Your task to perform on an android device: Open Amazon Image 0: 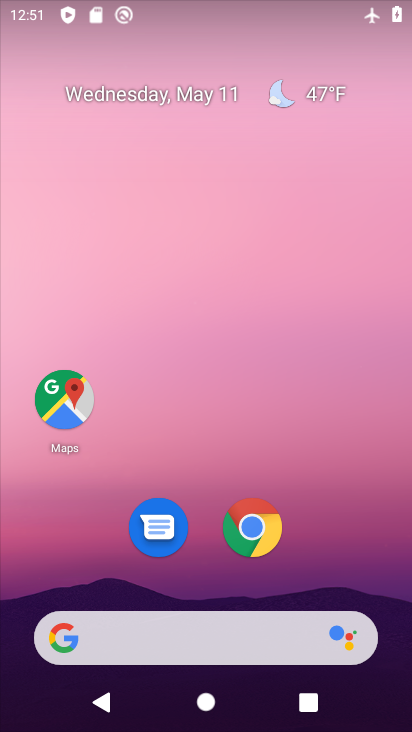
Step 0: drag from (342, 367) to (319, 166)
Your task to perform on an android device: Open Amazon Image 1: 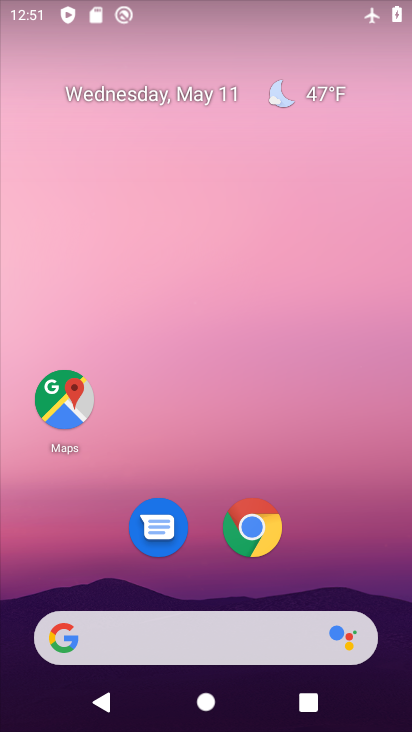
Step 1: drag from (237, 575) to (264, 125)
Your task to perform on an android device: Open Amazon Image 2: 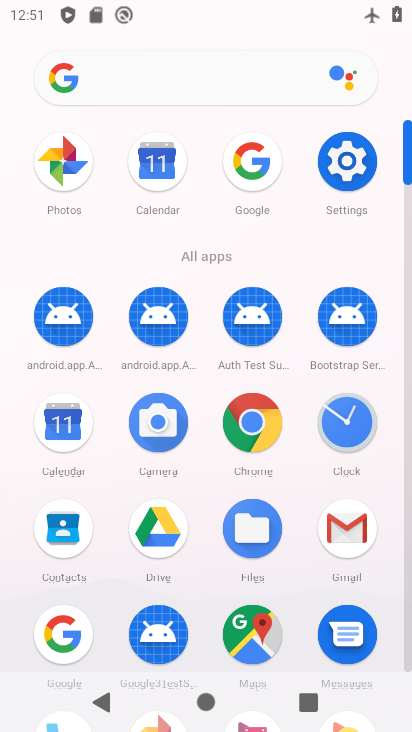
Step 2: drag from (209, 547) to (249, 179)
Your task to perform on an android device: Open Amazon Image 3: 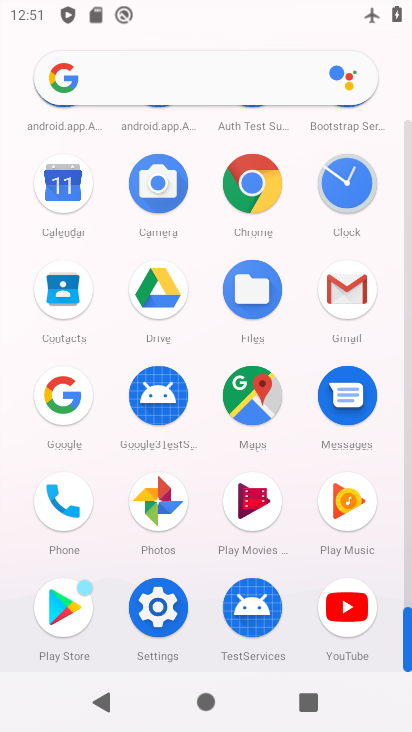
Step 3: click (57, 385)
Your task to perform on an android device: Open Amazon Image 4: 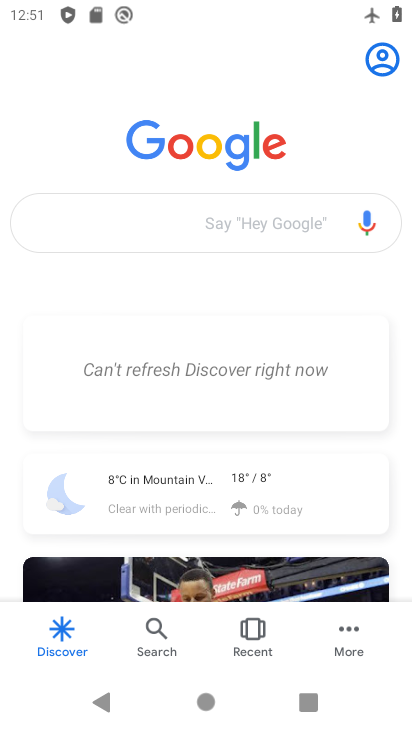
Step 4: click (81, 231)
Your task to perform on an android device: Open Amazon Image 5: 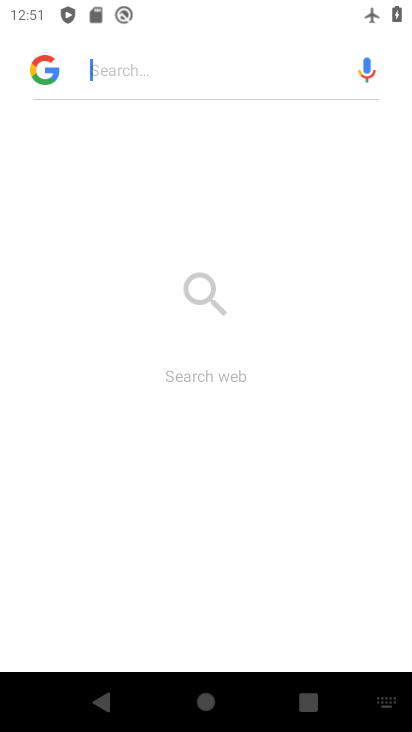
Step 5: press back button
Your task to perform on an android device: Open Amazon Image 6: 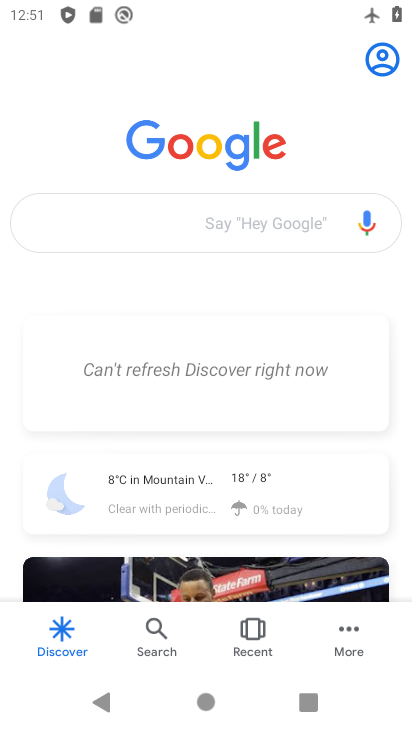
Step 6: press back button
Your task to perform on an android device: Open Amazon Image 7: 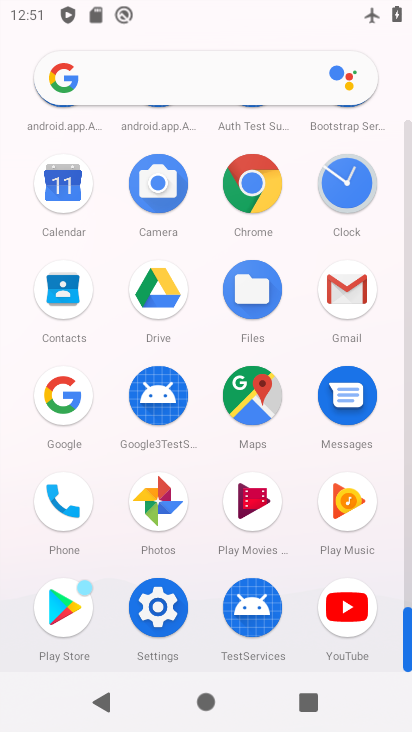
Step 7: click (245, 174)
Your task to perform on an android device: Open Amazon Image 8: 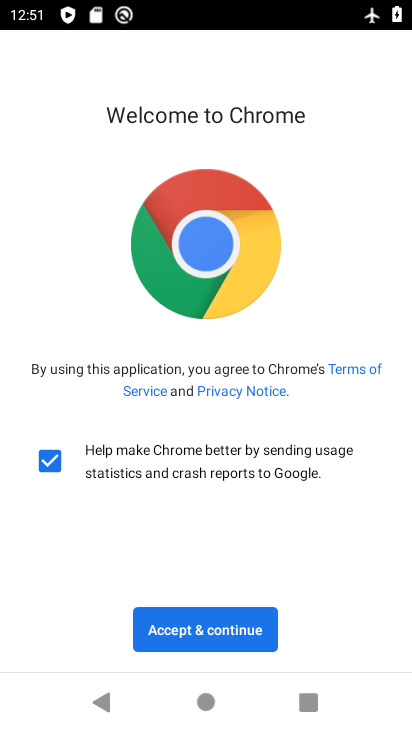
Step 8: click (186, 611)
Your task to perform on an android device: Open Amazon Image 9: 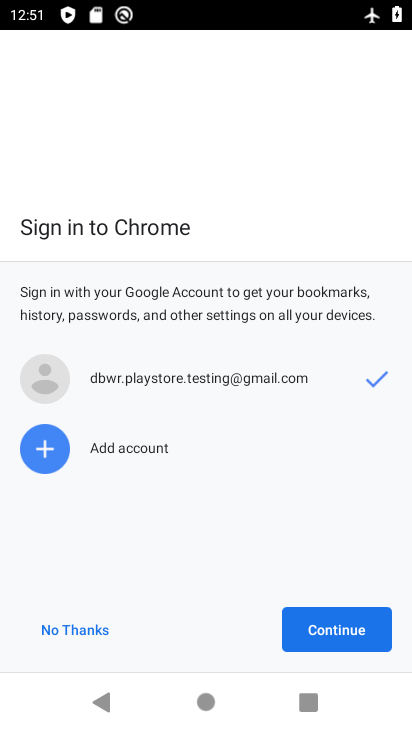
Step 9: click (58, 632)
Your task to perform on an android device: Open Amazon Image 10: 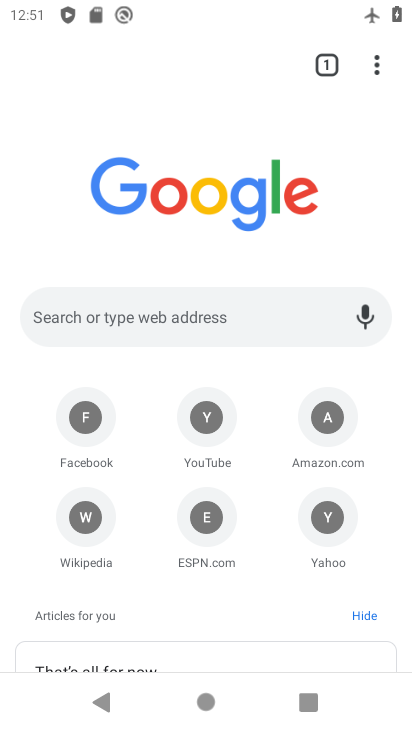
Step 10: click (322, 427)
Your task to perform on an android device: Open Amazon Image 11: 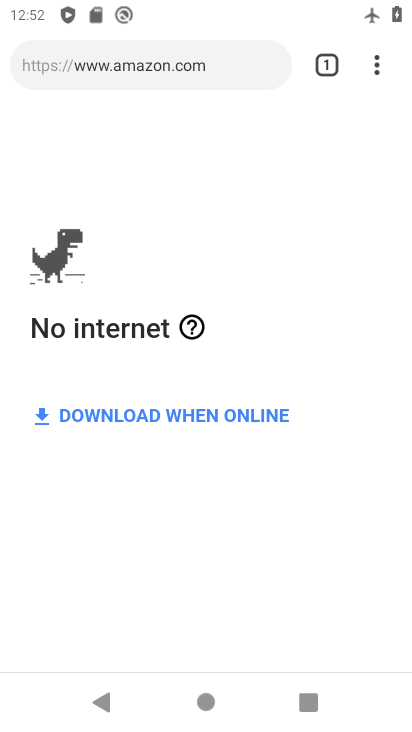
Step 11: drag from (282, 10) to (190, 500)
Your task to perform on an android device: Open Amazon Image 12: 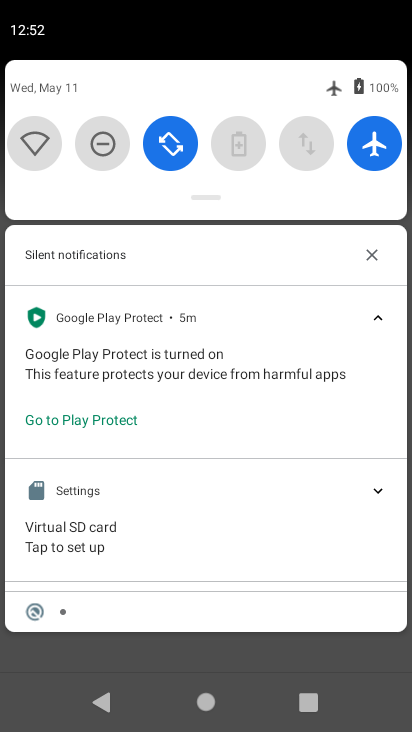
Step 12: click (370, 143)
Your task to perform on an android device: Open Amazon Image 13: 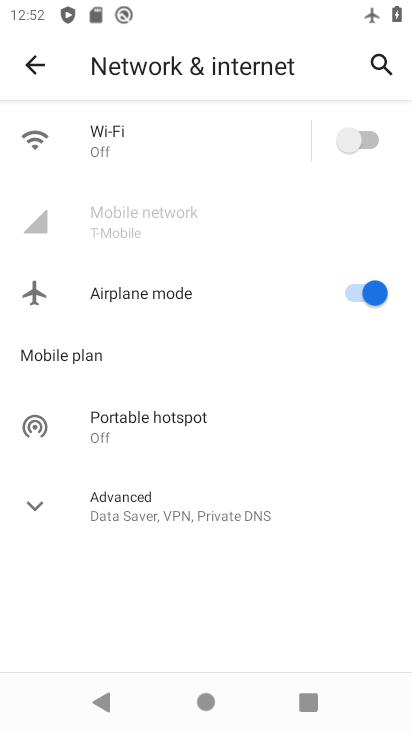
Step 13: click (361, 299)
Your task to perform on an android device: Open Amazon Image 14: 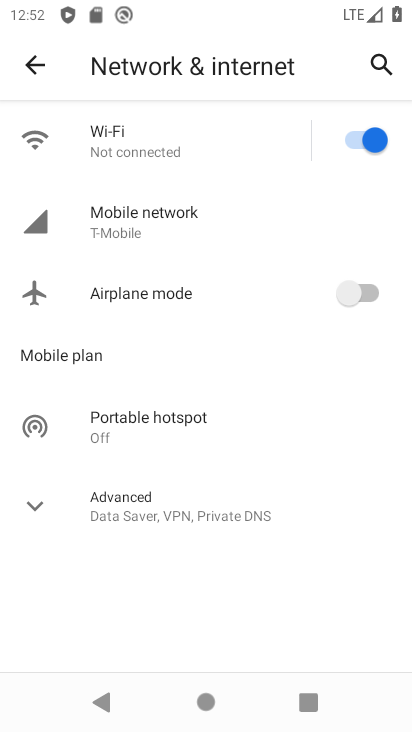
Step 14: click (21, 58)
Your task to perform on an android device: Open Amazon Image 15: 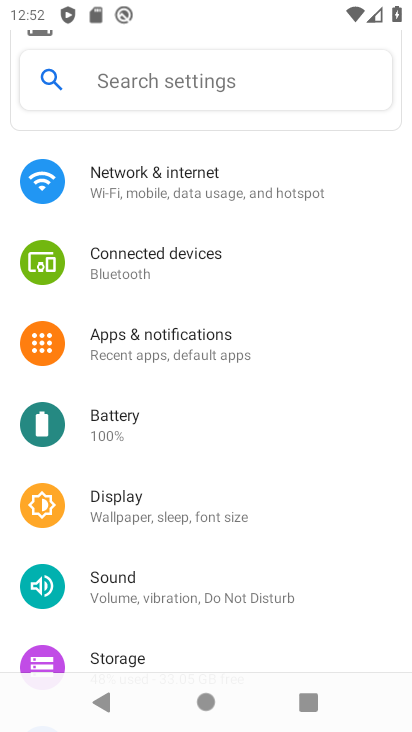
Step 15: press home button
Your task to perform on an android device: Open Amazon Image 16: 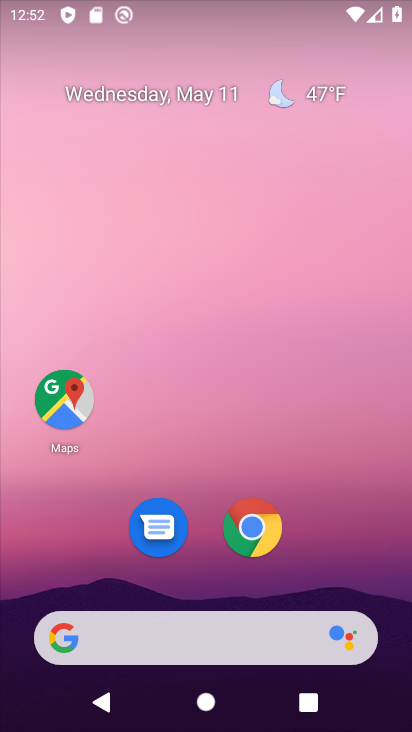
Step 16: drag from (169, 517) to (235, 175)
Your task to perform on an android device: Open Amazon Image 17: 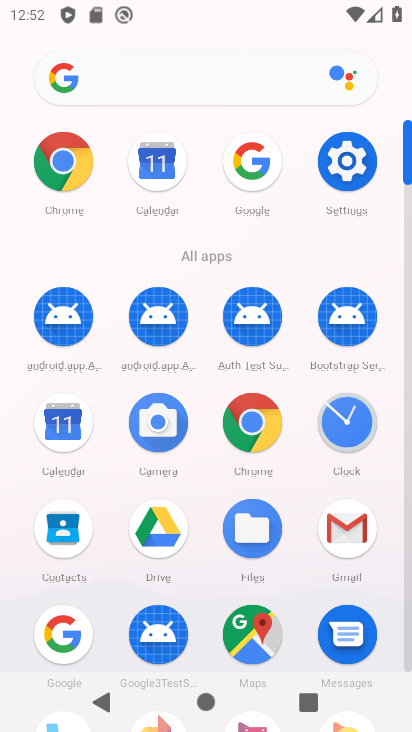
Step 17: click (58, 168)
Your task to perform on an android device: Open Amazon Image 18: 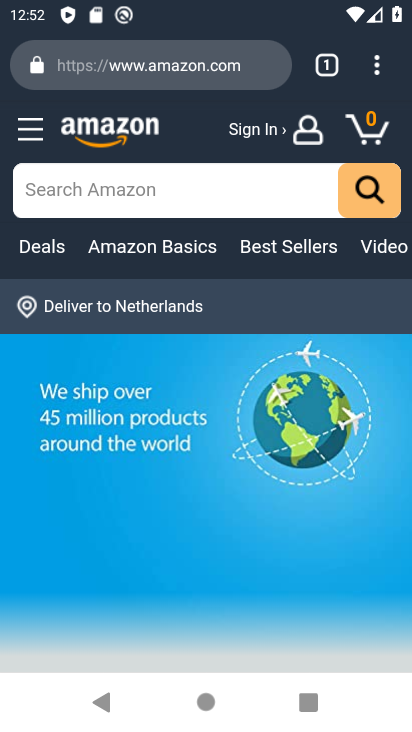
Step 18: task complete